Your task to perform on an android device: search for starred emails in the gmail app Image 0: 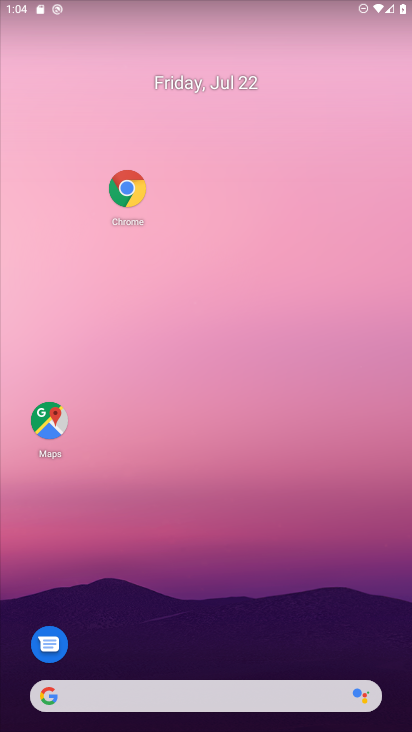
Step 0: drag from (205, 643) to (158, 212)
Your task to perform on an android device: search for starred emails in the gmail app Image 1: 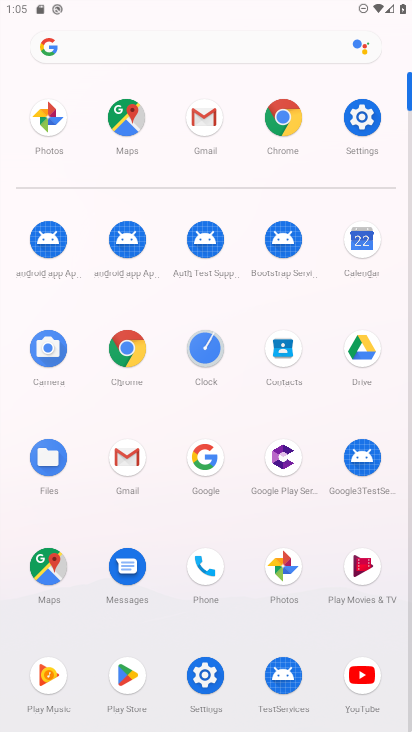
Step 1: click (190, 127)
Your task to perform on an android device: search for starred emails in the gmail app Image 2: 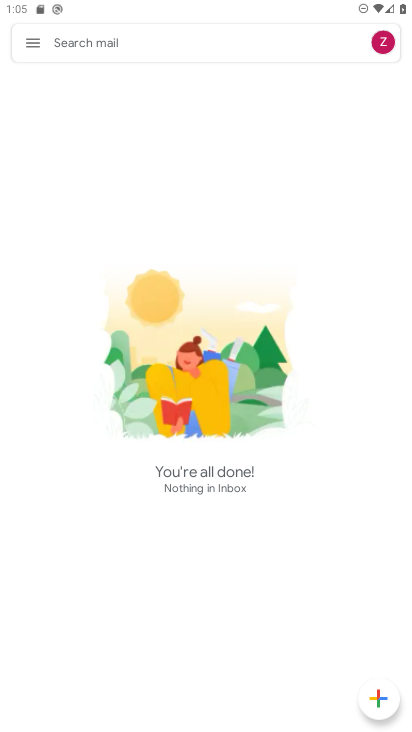
Step 2: click (22, 35)
Your task to perform on an android device: search for starred emails in the gmail app Image 3: 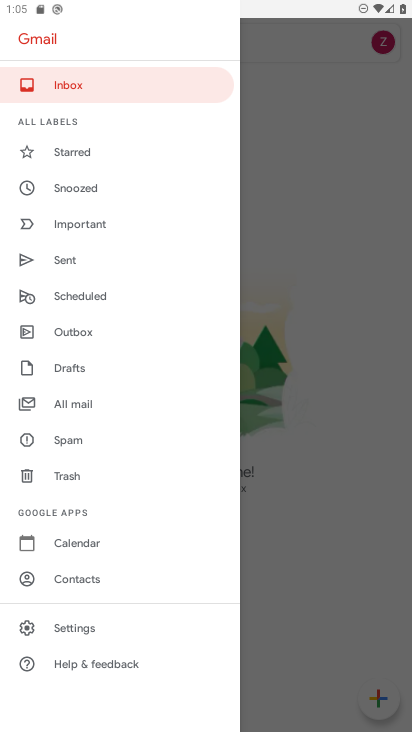
Step 3: click (68, 163)
Your task to perform on an android device: search for starred emails in the gmail app Image 4: 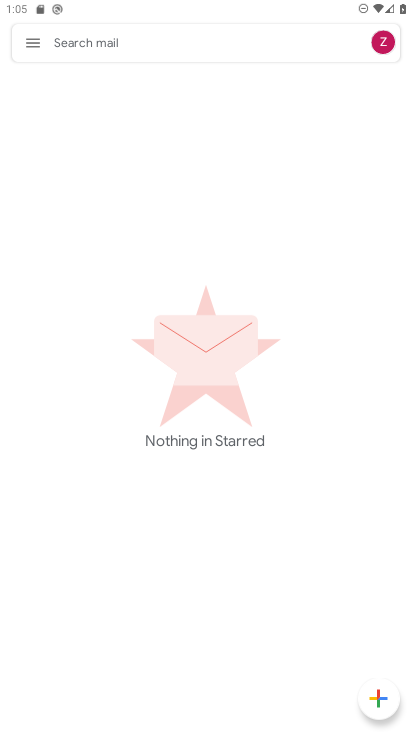
Step 4: task complete